Your task to perform on an android device: Search for pizza restaurants on Maps Image 0: 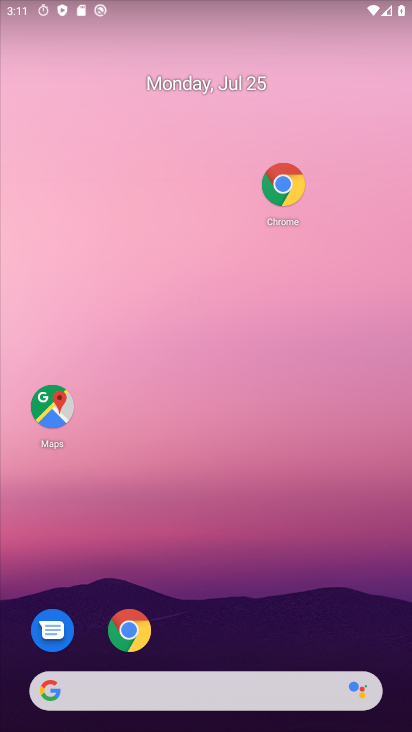
Step 0: click (167, 243)
Your task to perform on an android device: Search for pizza restaurants on Maps Image 1: 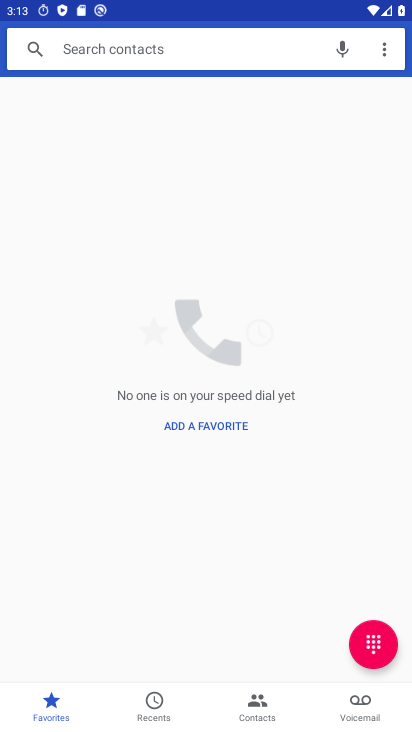
Step 1: drag from (295, 607) to (312, 108)
Your task to perform on an android device: Search for pizza restaurants on Maps Image 2: 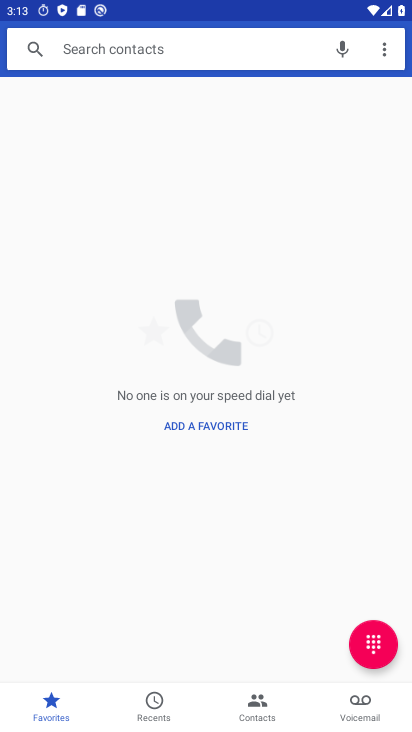
Step 2: drag from (310, 470) to (287, 58)
Your task to perform on an android device: Search for pizza restaurants on Maps Image 3: 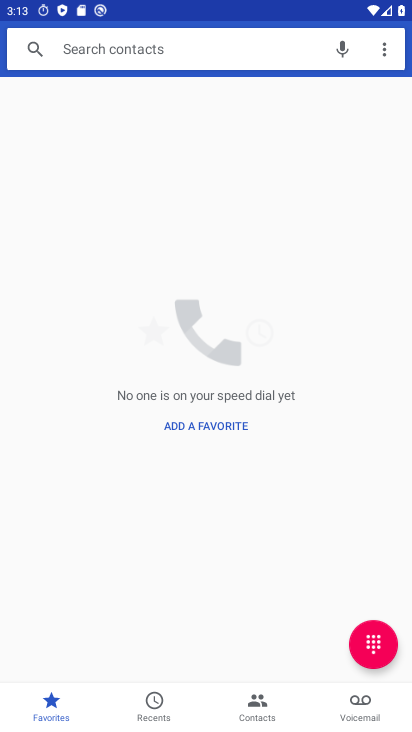
Step 3: press back button
Your task to perform on an android device: Search for pizza restaurants on Maps Image 4: 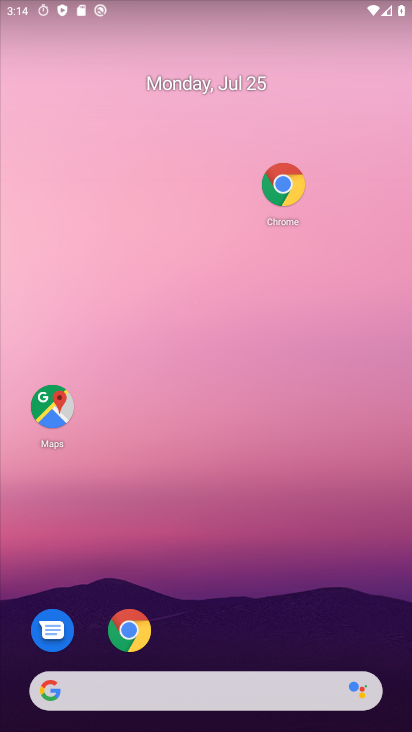
Step 4: drag from (148, 160) to (142, 123)
Your task to perform on an android device: Search for pizza restaurants on Maps Image 5: 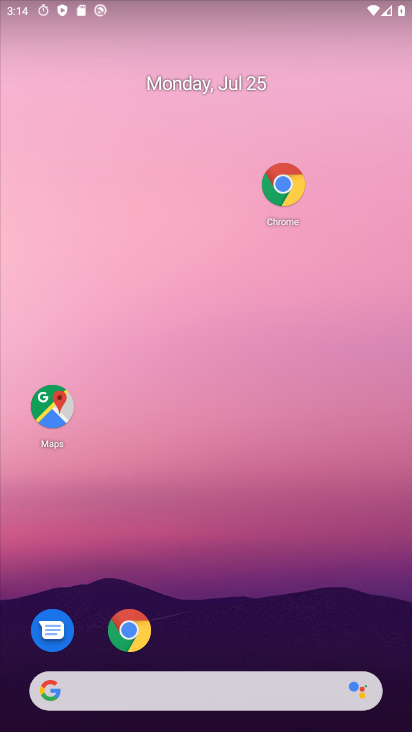
Step 5: drag from (129, 297) to (161, 106)
Your task to perform on an android device: Search for pizza restaurants on Maps Image 6: 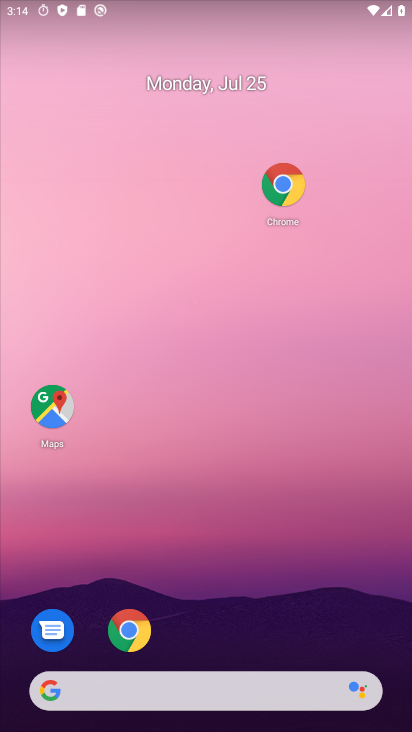
Step 6: drag from (171, 431) to (167, 168)
Your task to perform on an android device: Search for pizza restaurants on Maps Image 7: 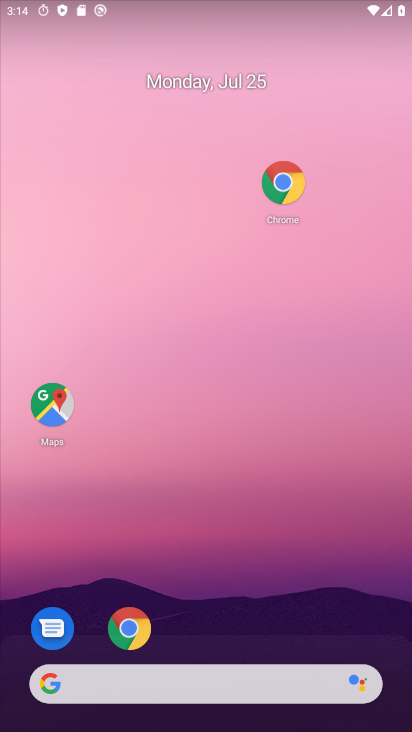
Step 7: drag from (266, 377) to (243, 78)
Your task to perform on an android device: Search for pizza restaurants on Maps Image 8: 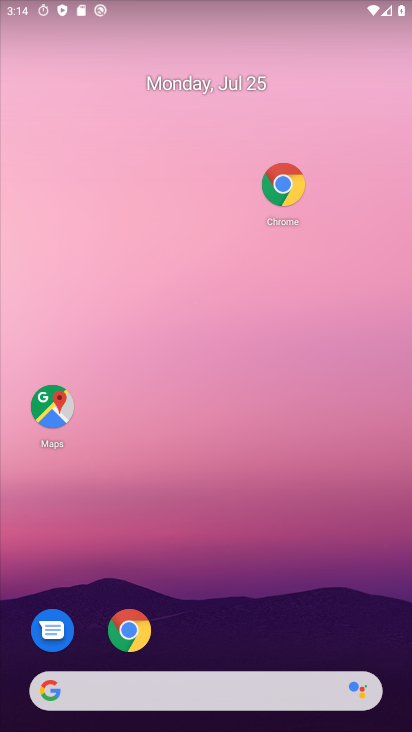
Step 8: drag from (145, 507) to (143, 106)
Your task to perform on an android device: Search for pizza restaurants on Maps Image 9: 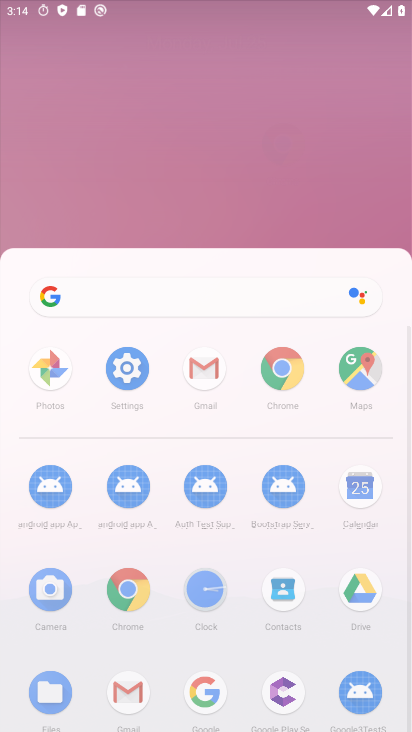
Step 9: drag from (193, 381) to (104, 59)
Your task to perform on an android device: Search for pizza restaurants on Maps Image 10: 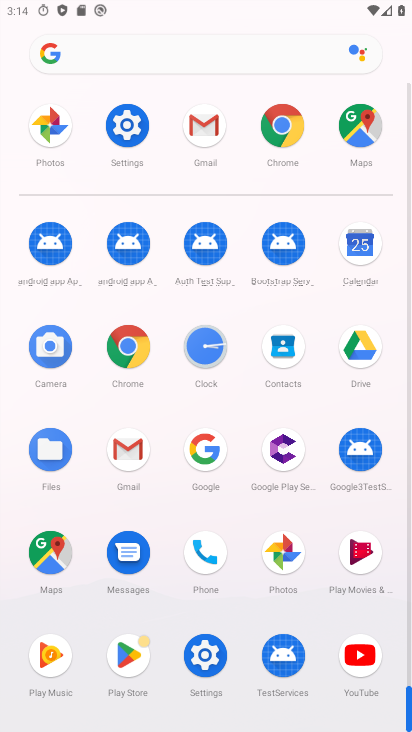
Step 10: drag from (109, 113) to (168, 18)
Your task to perform on an android device: Search for pizza restaurants on Maps Image 11: 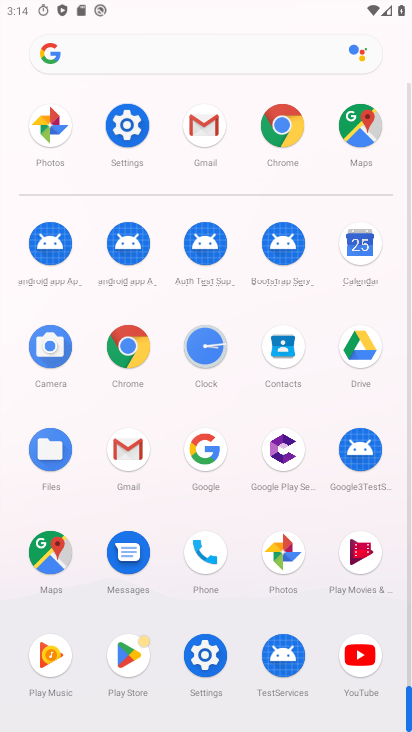
Step 11: drag from (209, 294) to (217, 15)
Your task to perform on an android device: Search for pizza restaurants on Maps Image 12: 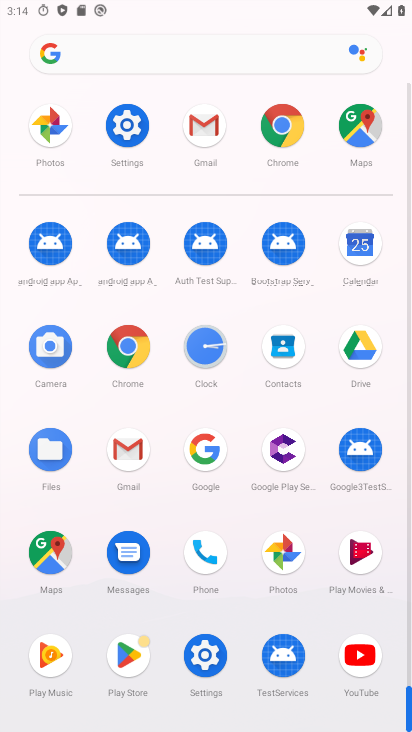
Step 12: drag from (192, 207) to (192, 65)
Your task to perform on an android device: Search for pizza restaurants on Maps Image 13: 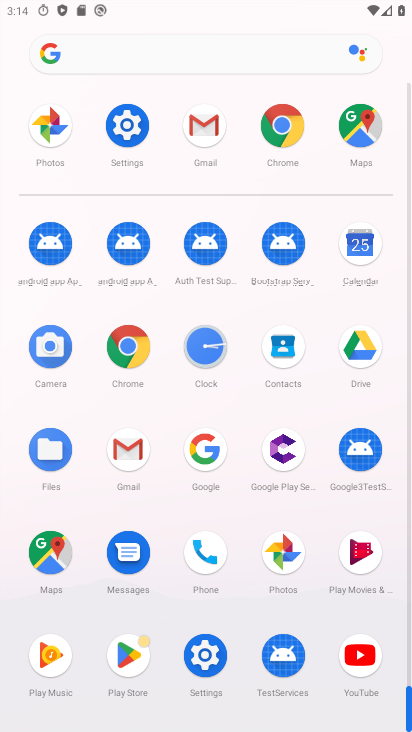
Step 13: click (52, 556)
Your task to perform on an android device: Search for pizza restaurants on Maps Image 14: 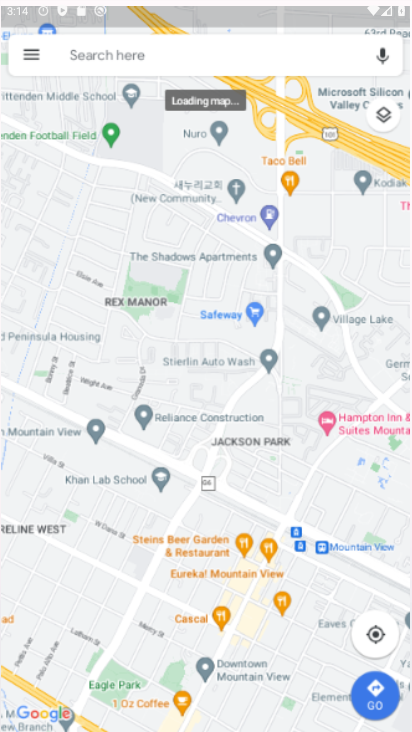
Step 14: click (52, 556)
Your task to perform on an android device: Search for pizza restaurants on Maps Image 15: 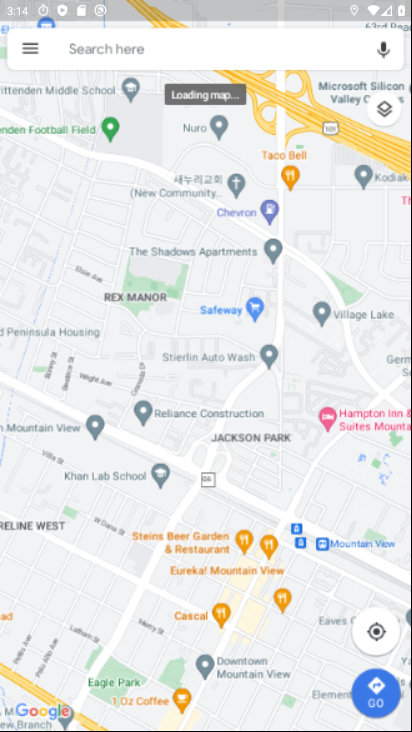
Step 15: click (86, 66)
Your task to perform on an android device: Search for pizza restaurants on Maps Image 16: 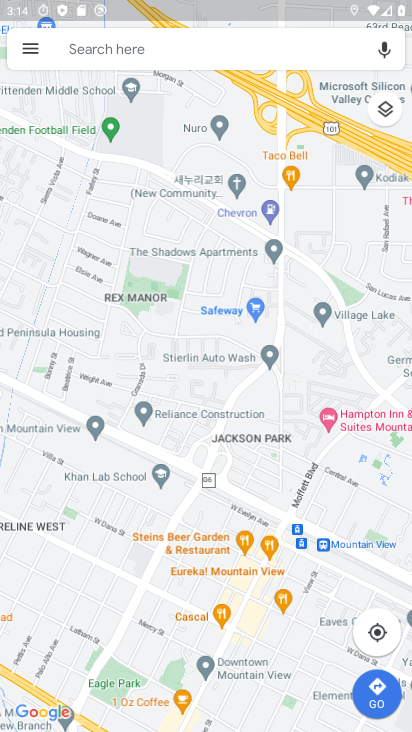
Step 16: click (86, 43)
Your task to perform on an android device: Search for pizza restaurants on Maps Image 17: 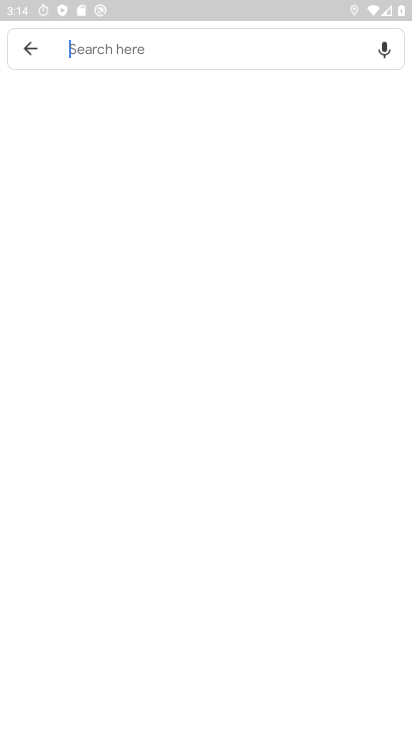
Step 17: click (103, 42)
Your task to perform on an android device: Search for pizza restaurants on Maps Image 18: 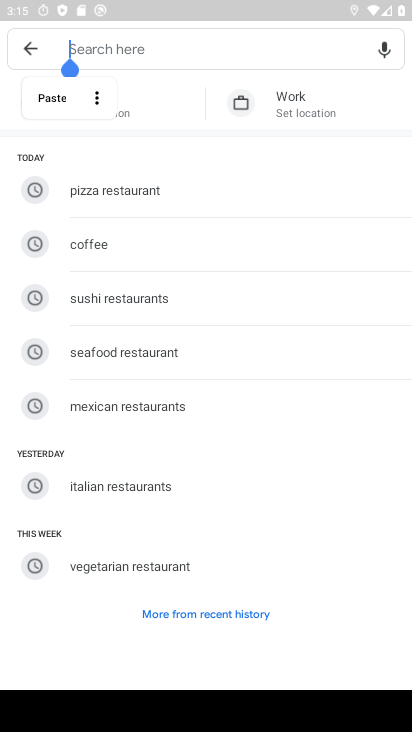
Step 18: click (114, 189)
Your task to perform on an android device: Search for pizza restaurants on Maps Image 19: 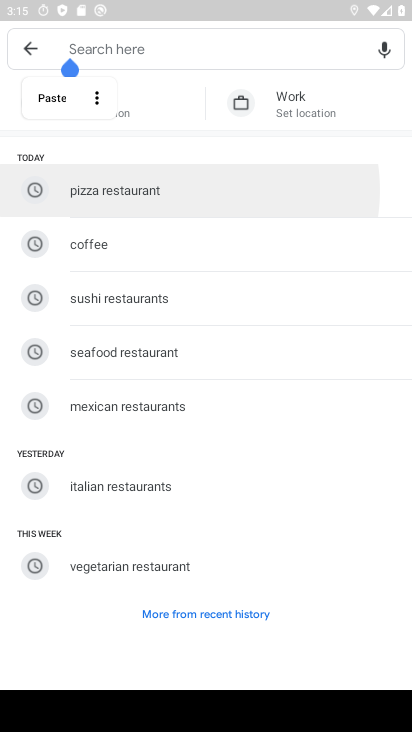
Step 19: click (113, 187)
Your task to perform on an android device: Search for pizza restaurants on Maps Image 20: 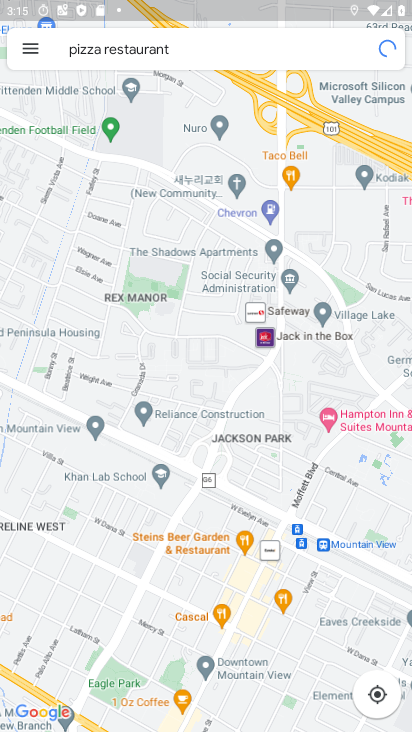
Step 20: task complete